Your task to perform on an android device: open app "Gboard" Image 0: 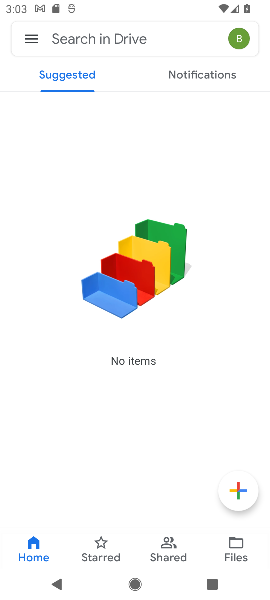
Step 0: press home button
Your task to perform on an android device: open app "Gboard" Image 1: 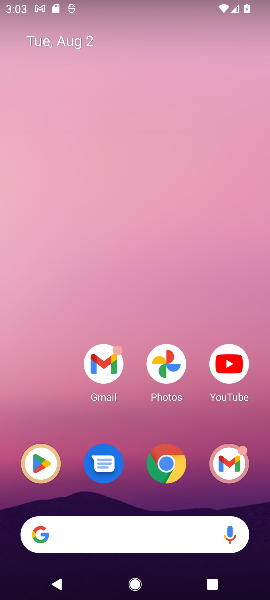
Step 1: click (36, 457)
Your task to perform on an android device: open app "Gboard" Image 2: 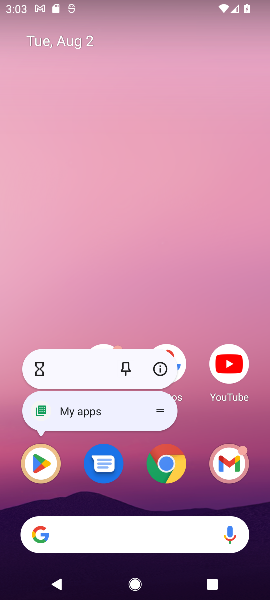
Step 2: click (37, 463)
Your task to perform on an android device: open app "Gboard" Image 3: 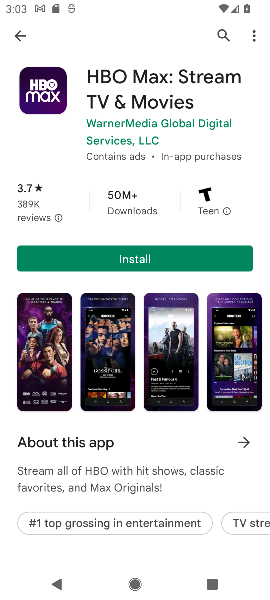
Step 3: click (224, 35)
Your task to perform on an android device: open app "Gboard" Image 4: 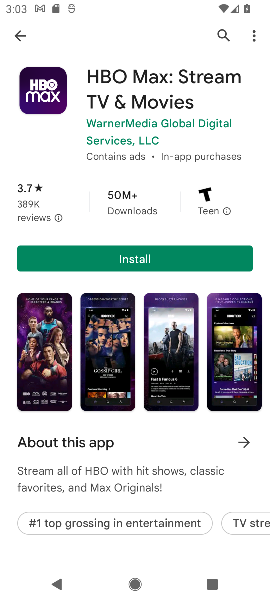
Step 4: click (224, 26)
Your task to perform on an android device: open app "Gboard" Image 5: 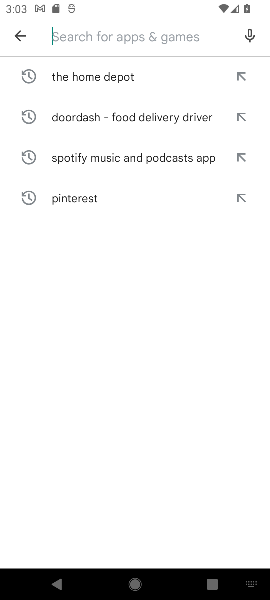
Step 5: type "Gboard"
Your task to perform on an android device: open app "Gboard" Image 6: 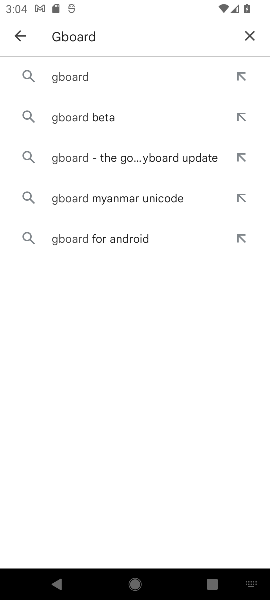
Step 6: click (80, 75)
Your task to perform on an android device: open app "Gboard" Image 7: 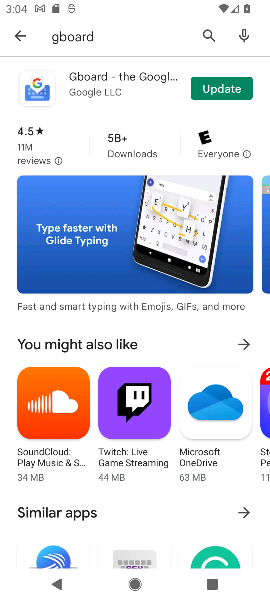
Step 7: task complete